Your task to perform on an android device: open app "Venmo" (install if not already installed) Image 0: 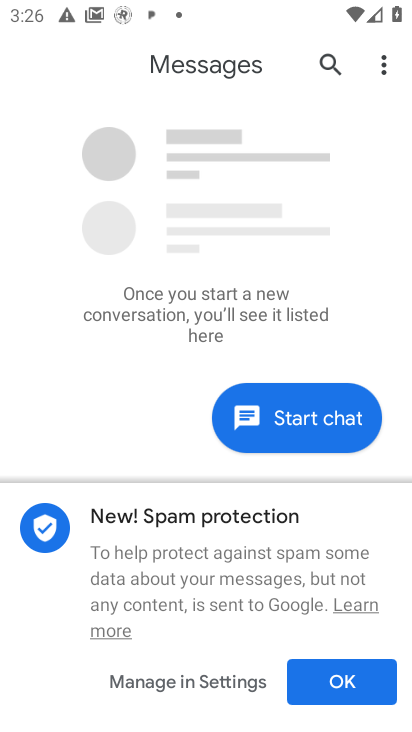
Step 0: press home button
Your task to perform on an android device: open app "Venmo" (install if not already installed) Image 1: 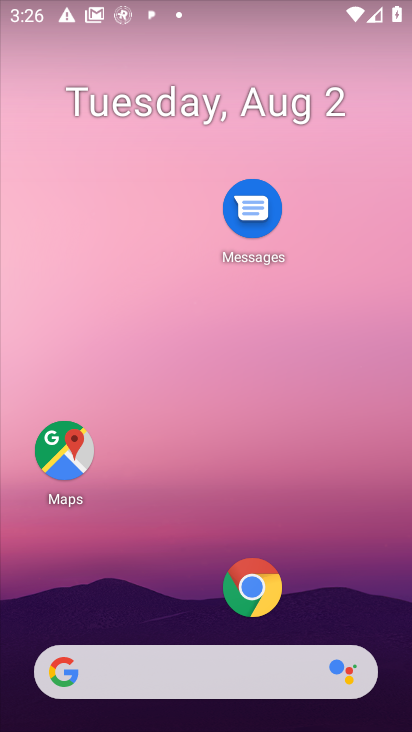
Step 1: drag from (191, 595) to (200, 228)
Your task to perform on an android device: open app "Venmo" (install if not already installed) Image 2: 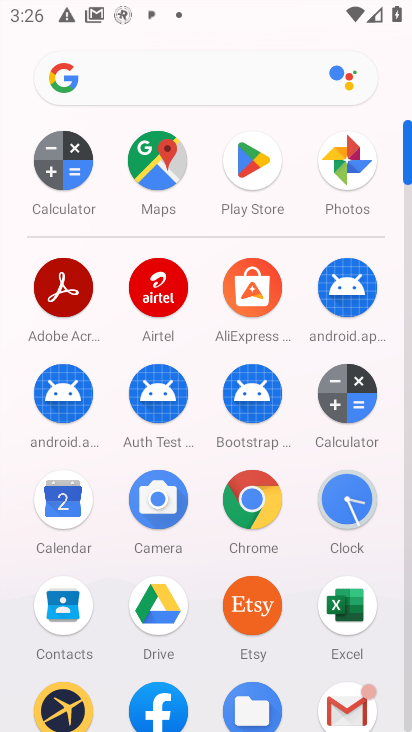
Step 2: click (255, 176)
Your task to perform on an android device: open app "Venmo" (install if not already installed) Image 3: 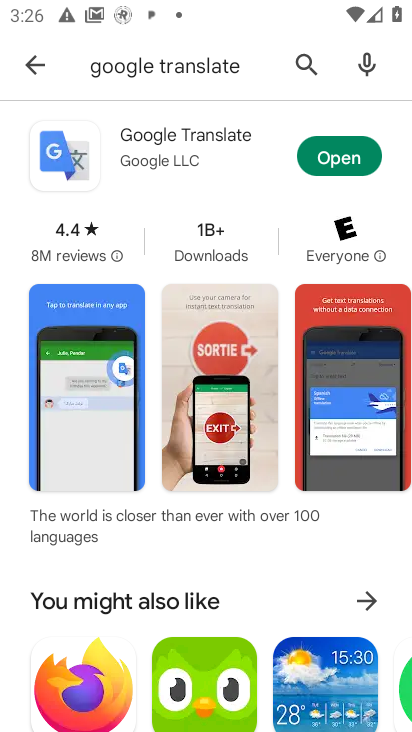
Step 3: click (300, 65)
Your task to perform on an android device: open app "Venmo" (install if not already installed) Image 4: 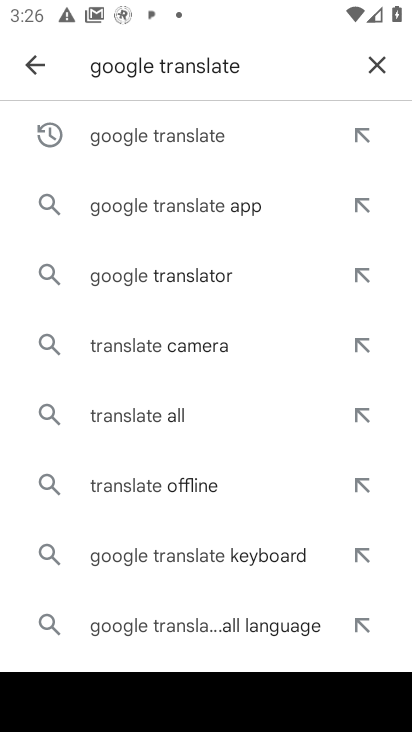
Step 4: click (356, 76)
Your task to perform on an android device: open app "Venmo" (install if not already installed) Image 5: 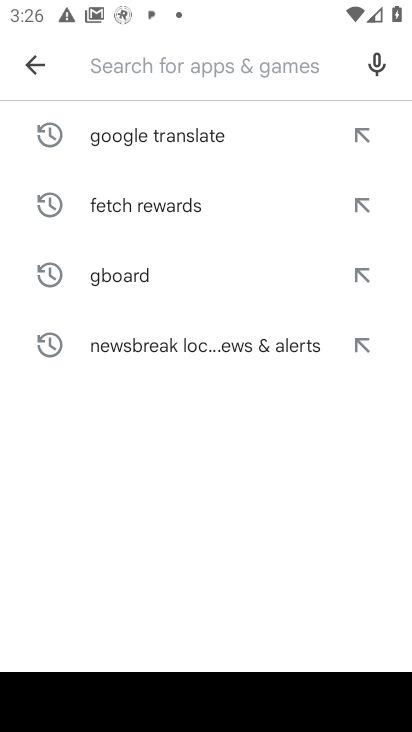
Step 5: type "Venmo"
Your task to perform on an android device: open app "Venmo" (install if not already installed) Image 6: 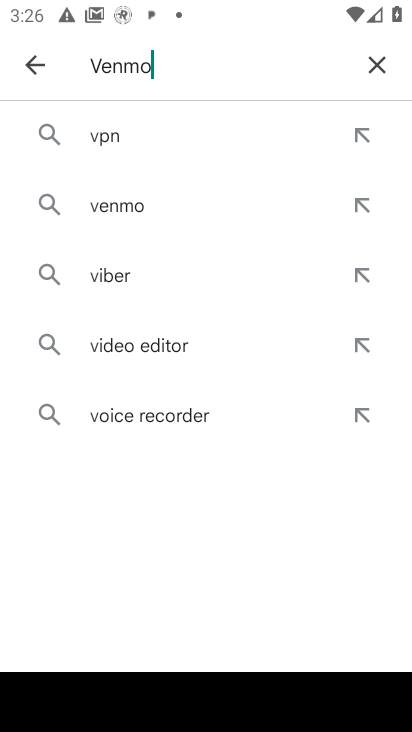
Step 6: type ""
Your task to perform on an android device: open app "Venmo" (install if not already installed) Image 7: 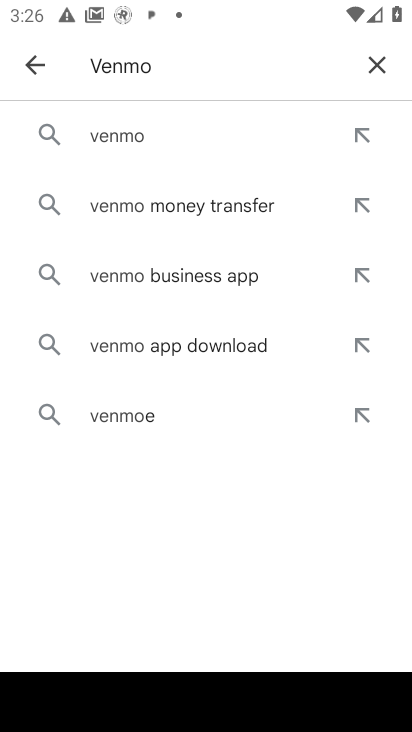
Step 7: click (167, 133)
Your task to perform on an android device: open app "Venmo" (install if not already installed) Image 8: 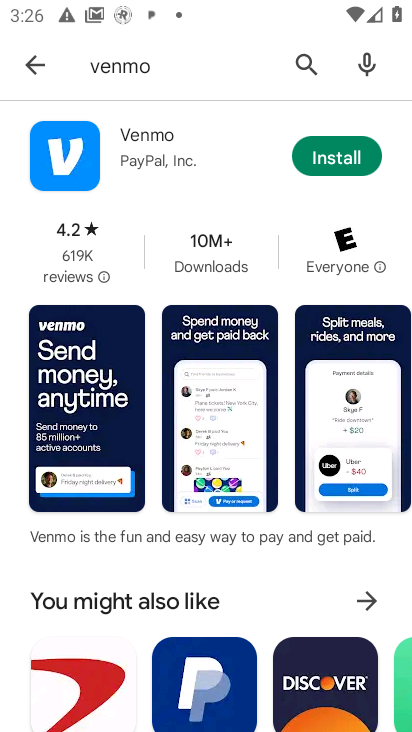
Step 8: click (364, 165)
Your task to perform on an android device: open app "Venmo" (install if not already installed) Image 9: 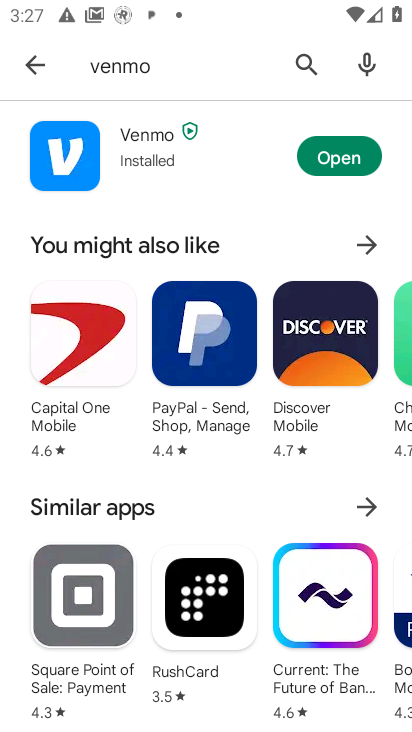
Step 9: click (335, 156)
Your task to perform on an android device: open app "Venmo" (install if not already installed) Image 10: 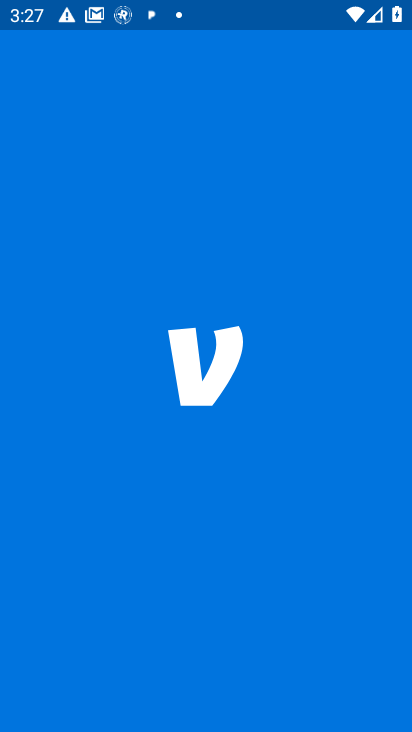
Step 10: task complete